Your task to perform on an android device: add a contact in the contacts app Image 0: 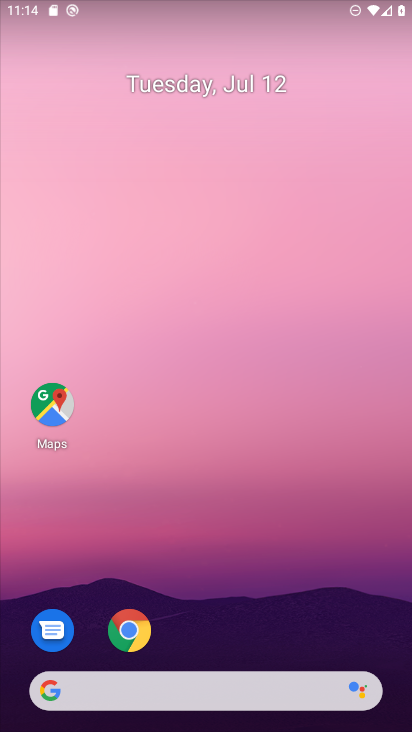
Step 0: drag from (342, 542) to (268, 86)
Your task to perform on an android device: add a contact in the contacts app Image 1: 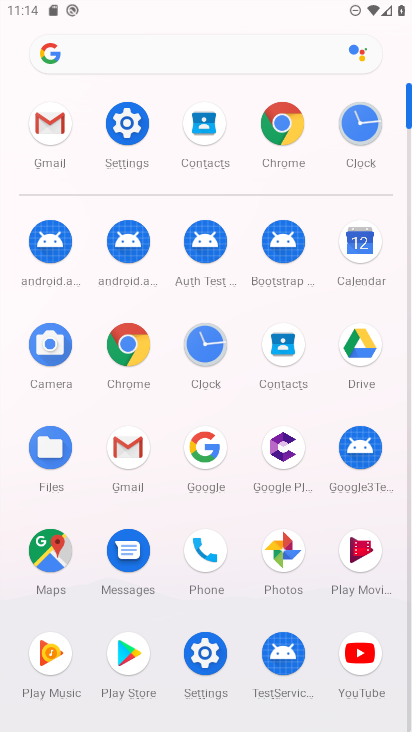
Step 1: click (283, 353)
Your task to perform on an android device: add a contact in the contacts app Image 2: 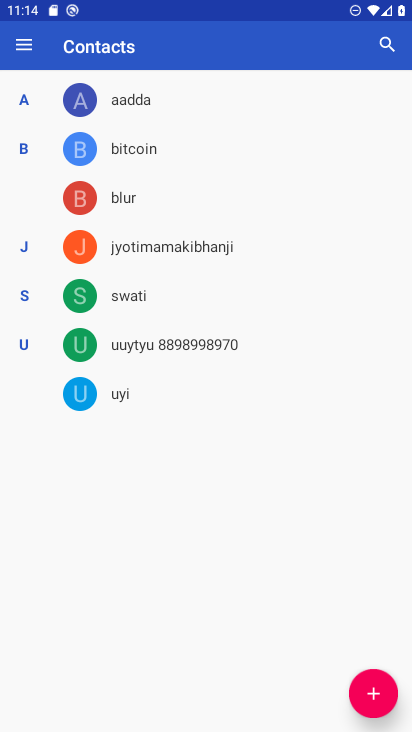
Step 2: click (386, 696)
Your task to perform on an android device: add a contact in the contacts app Image 3: 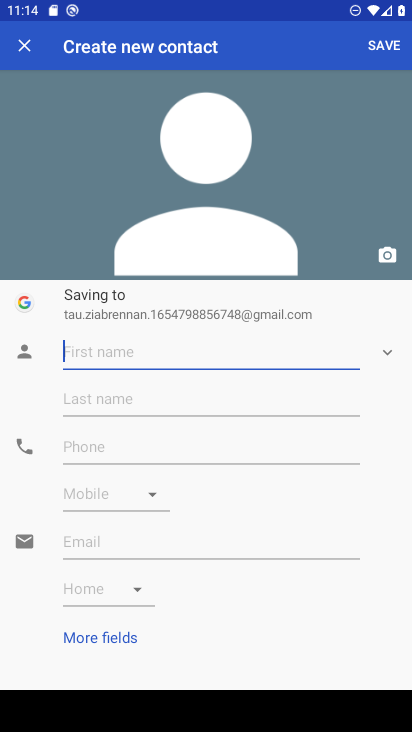
Step 3: type "jor"
Your task to perform on an android device: add a contact in the contacts app Image 4: 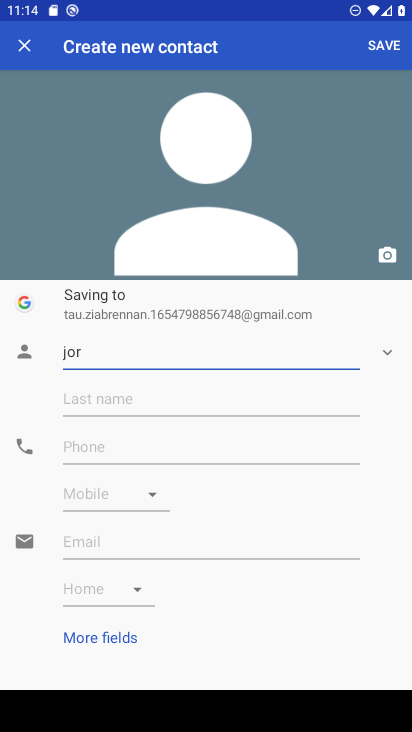
Step 4: click (394, 47)
Your task to perform on an android device: add a contact in the contacts app Image 5: 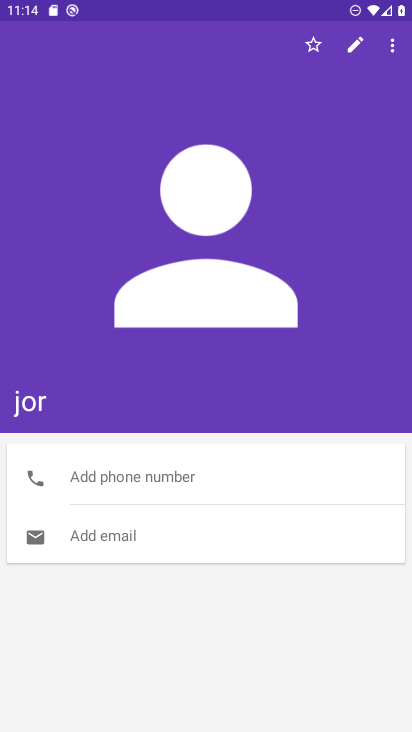
Step 5: task complete